Your task to perform on an android device: turn off javascript in the chrome app Image 0: 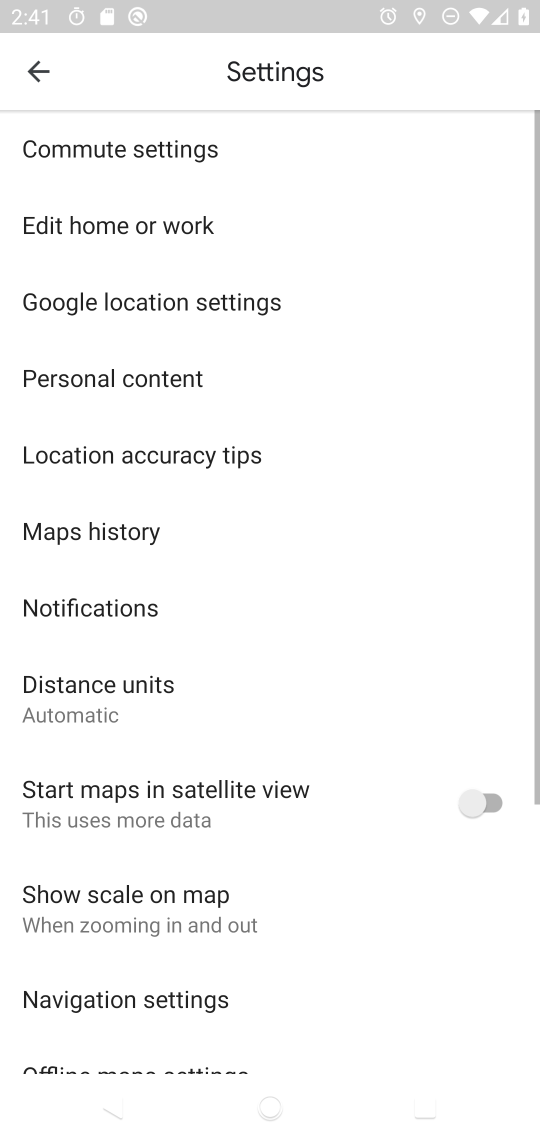
Step 0: press home button
Your task to perform on an android device: turn off javascript in the chrome app Image 1: 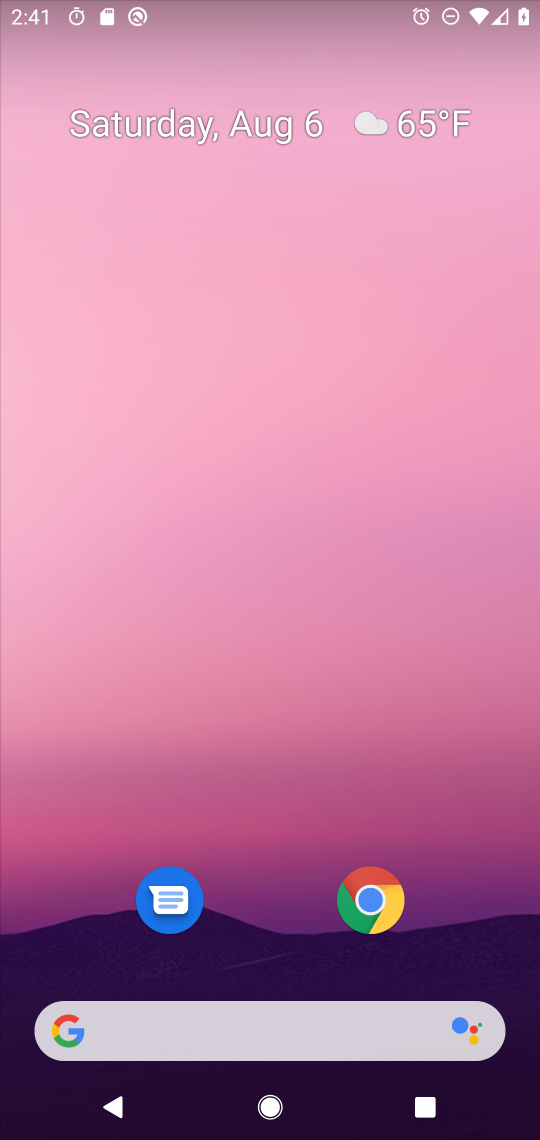
Step 1: drag from (248, 885) to (248, 117)
Your task to perform on an android device: turn off javascript in the chrome app Image 2: 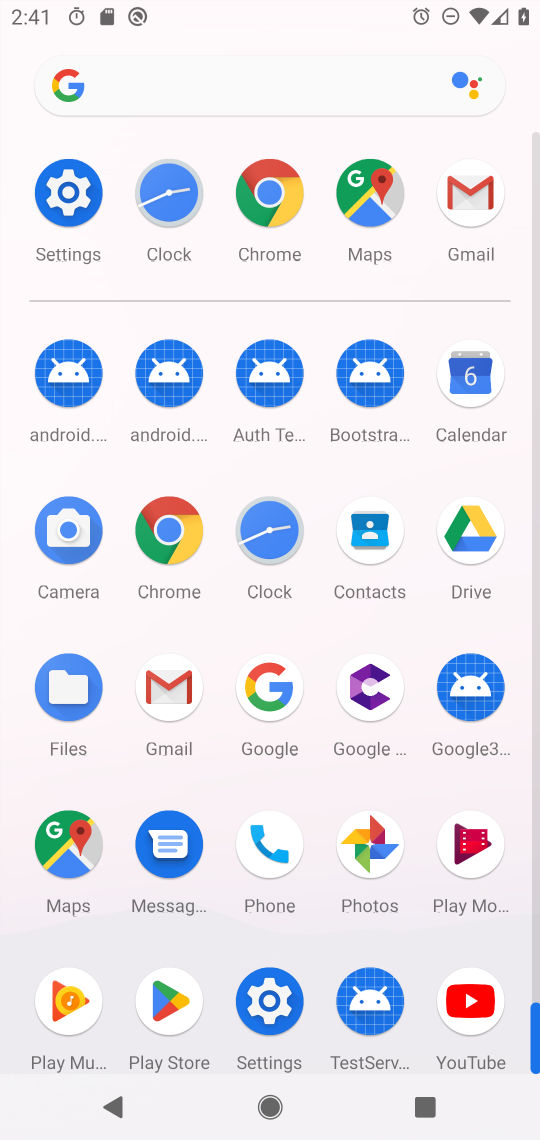
Step 2: click (168, 533)
Your task to perform on an android device: turn off javascript in the chrome app Image 3: 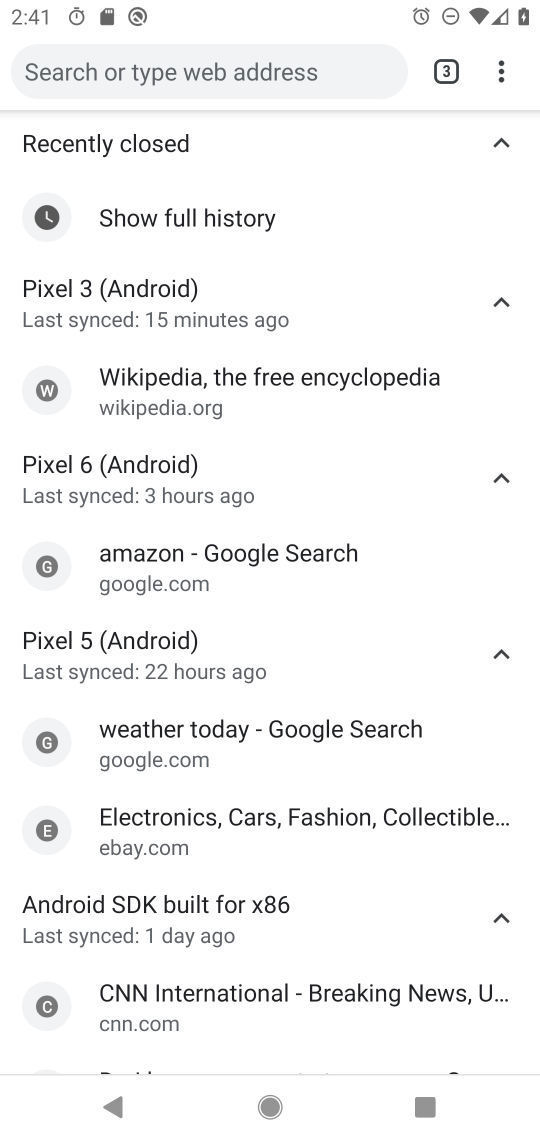
Step 3: click (503, 81)
Your task to perform on an android device: turn off javascript in the chrome app Image 4: 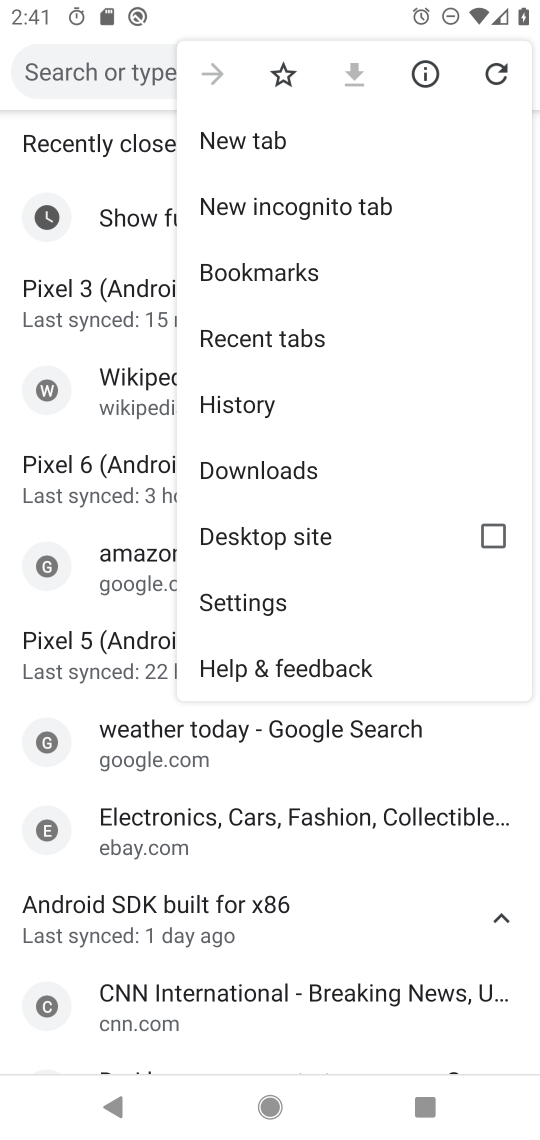
Step 4: click (245, 600)
Your task to perform on an android device: turn off javascript in the chrome app Image 5: 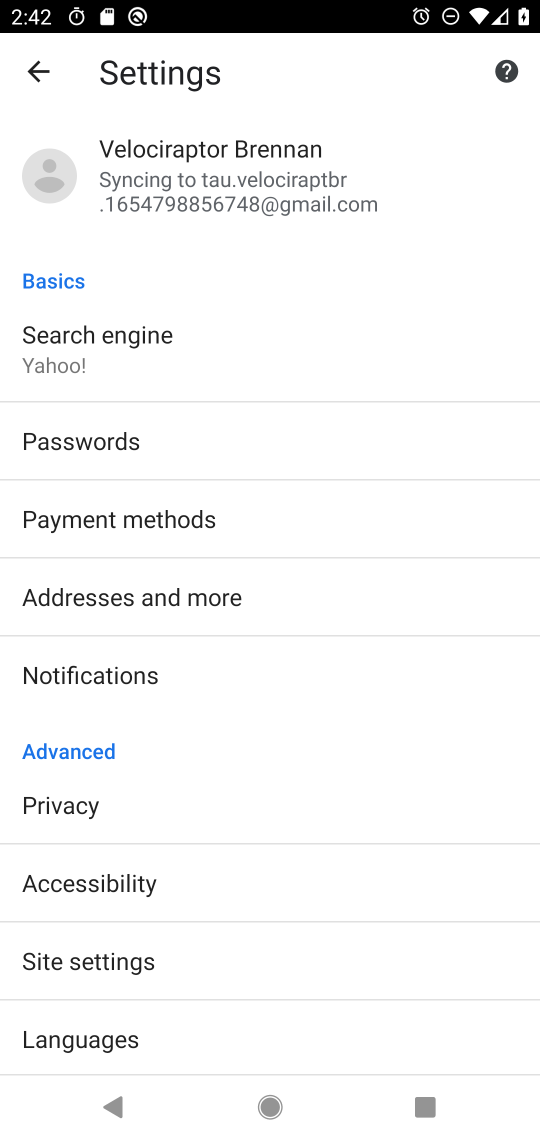
Step 5: click (71, 965)
Your task to perform on an android device: turn off javascript in the chrome app Image 6: 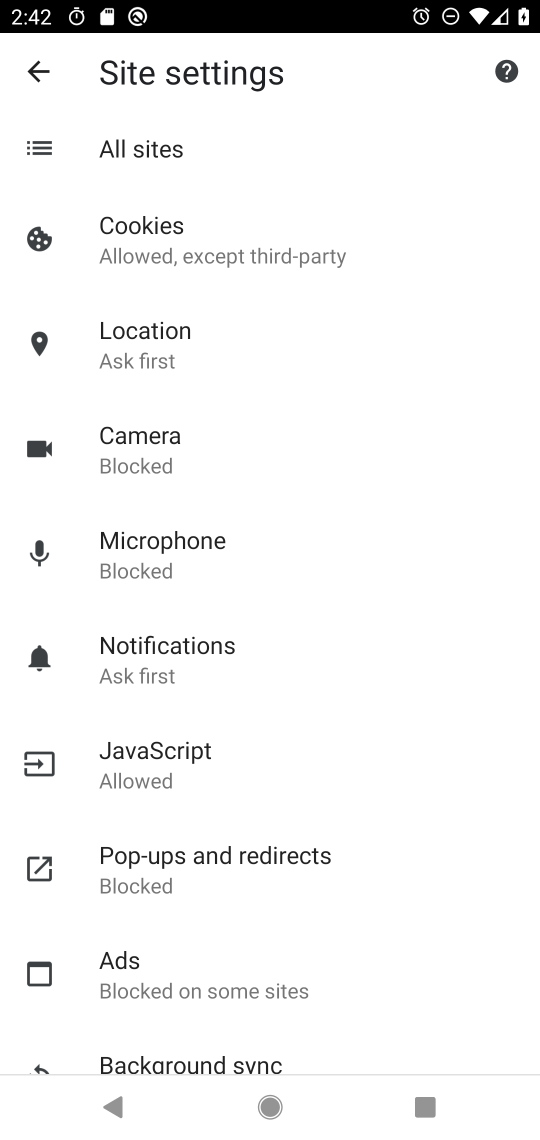
Step 6: click (150, 751)
Your task to perform on an android device: turn off javascript in the chrome app Image 7: 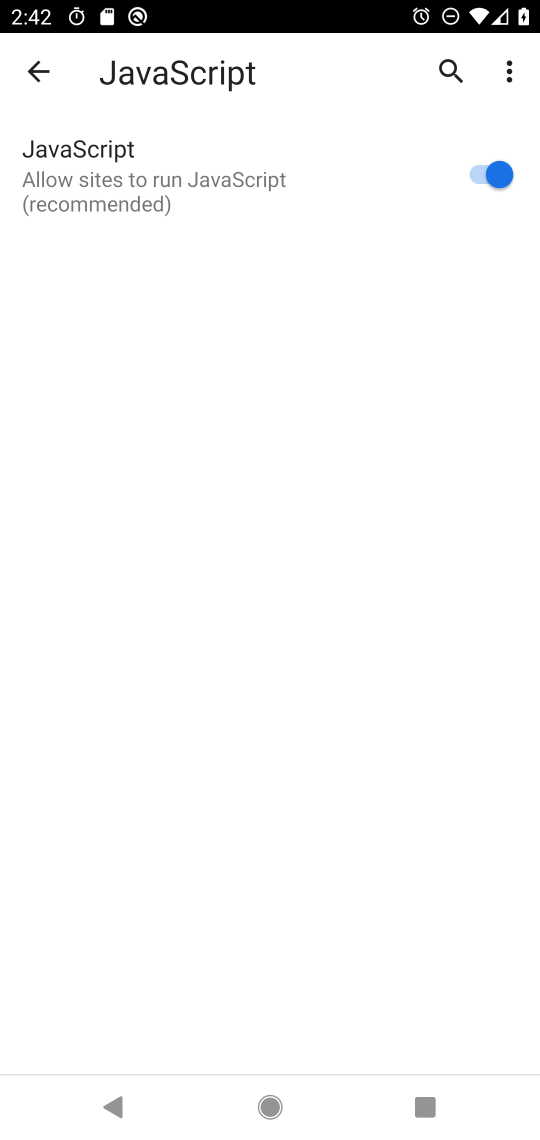
Step 7: click (483, 171)
Your task to perform on an android device: turn off javascript in the chrome app Image 8: 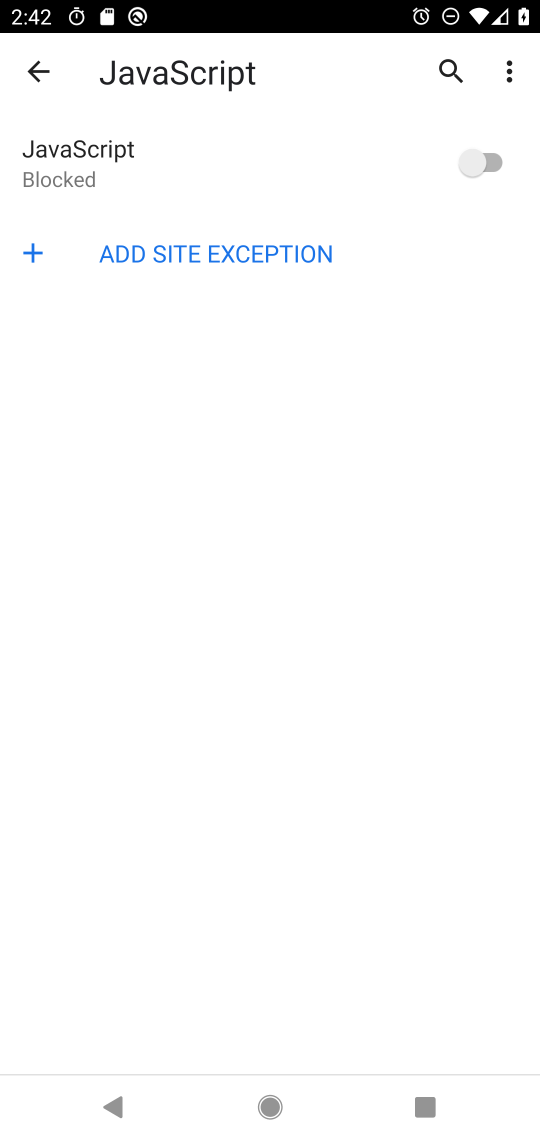
Step 8: task complete